Your task to perform on an android device: find snoozed emails in the gmail app Image 0: 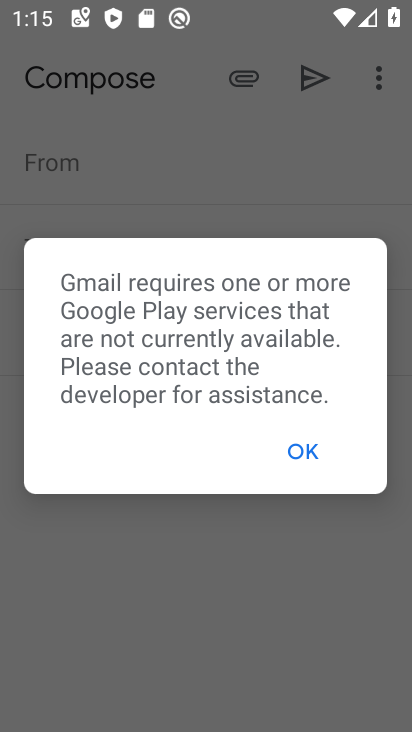
Step 0: drag from (236, 32) to (233, 522)
Your task to perform on an android device: find snoozed emails in the gmail app Image 1: 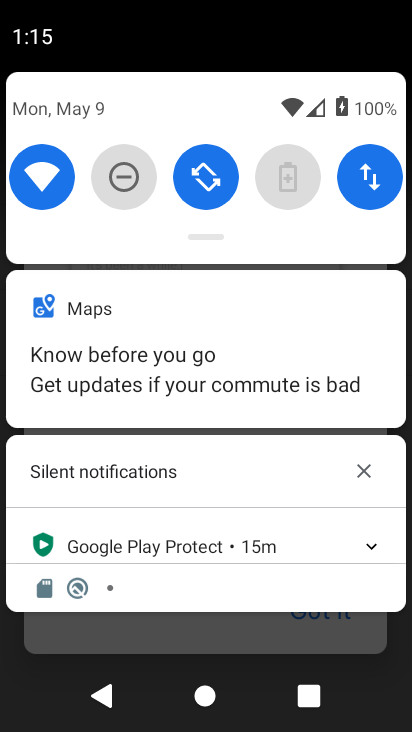
Step 1: click (114, 175)
Your task to perform on an android device: find snoozed emails in the gmail app Image 2: 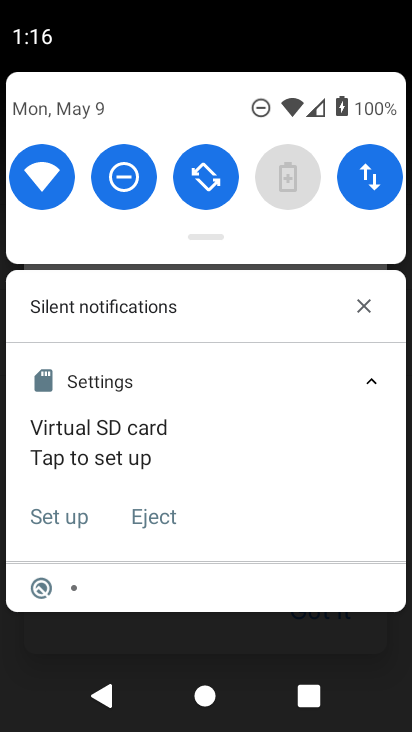
Step 2: click (133, 172)
Your task to perform on an android device: find snoozed emails in the gmail app Image 3: 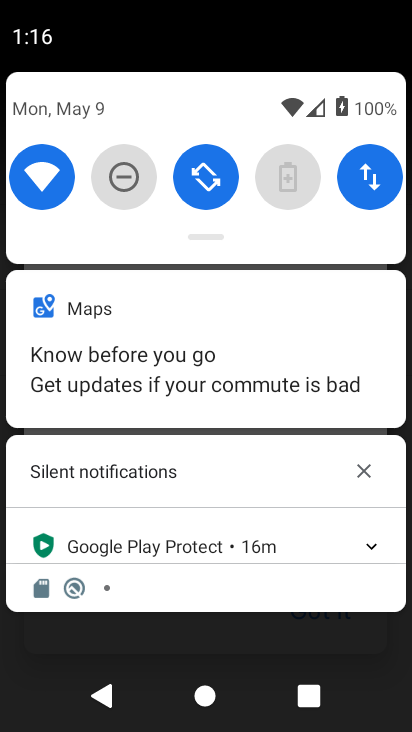
Step 3: click (133, 172)
Your task to perform on an android device: find snoozed emails in the gmail app Image 4: 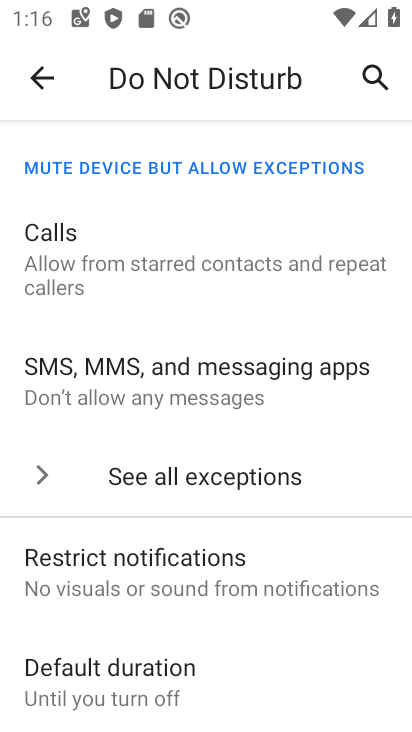
Step 4: task complete